Your task to perform on an android device: turn off location Image 0: 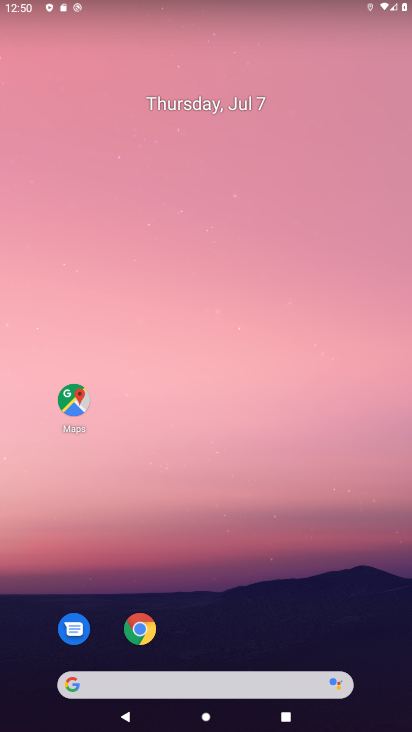
Step 0: drag from (195, 616) to (255, 157)
Your task to perform on an android device: turn off location Image 1: 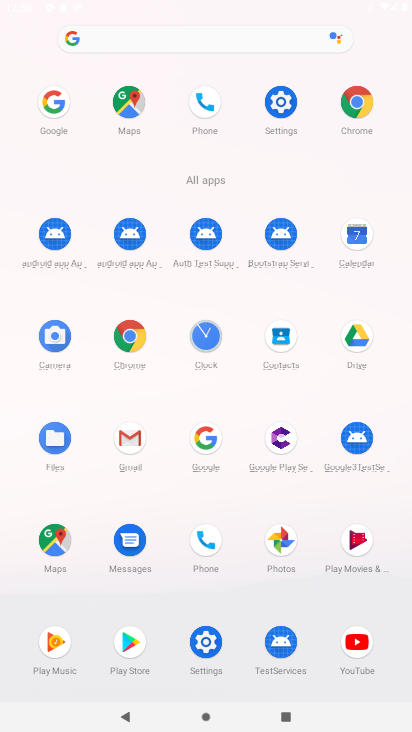
Step 1: click (280, 99)
Your task to perform on an android device: turn off location Image 2: 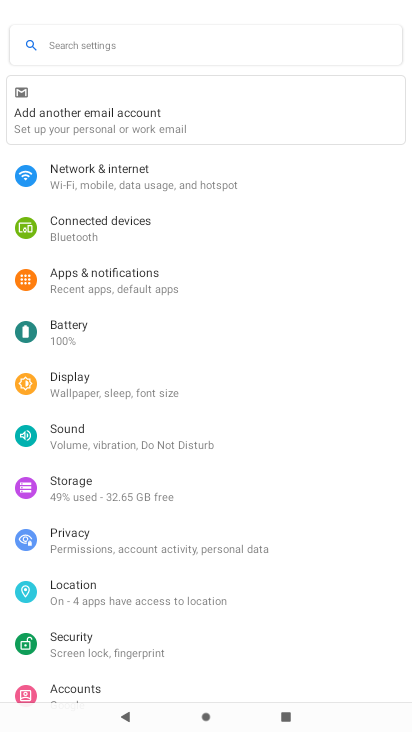
Step 2: click (113, 593)
Your task to perform on an android device: turn off location Image 3: 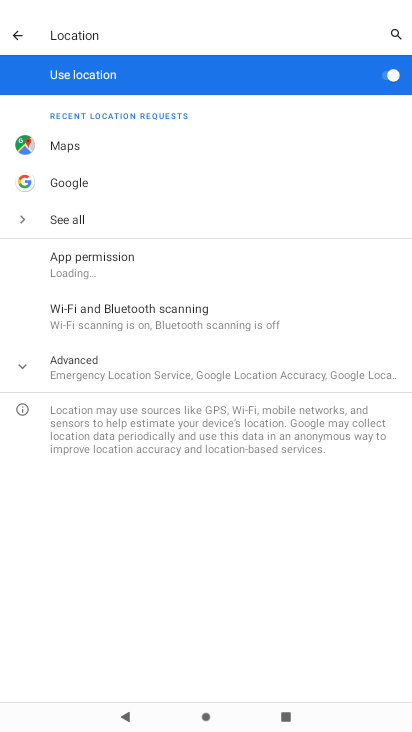
Step 3: click (391, 71)
Your task to perform on an android device: turn off location Image 4: 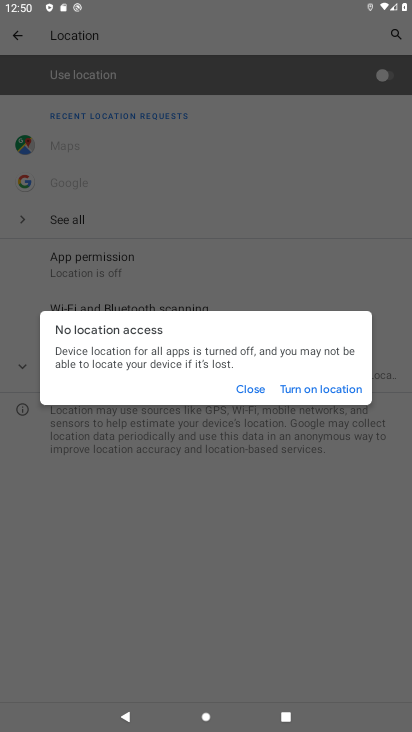
Step 4: click (243, 386)
Your task to perform on an android device: turn off location Image 5: 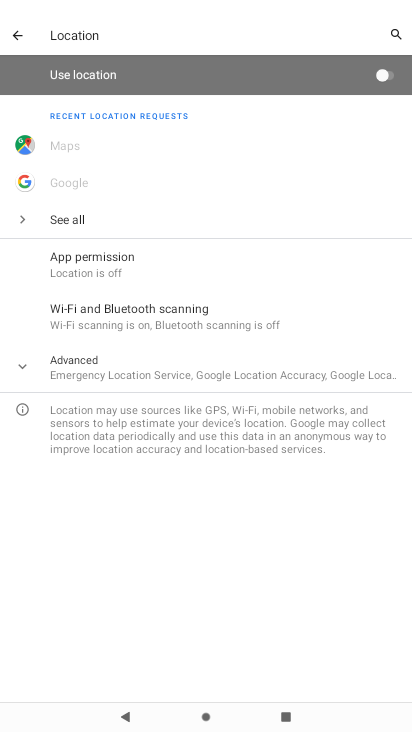
Step 5: task complete